Your task to perform on an android device: What is the recent news? Image 0: 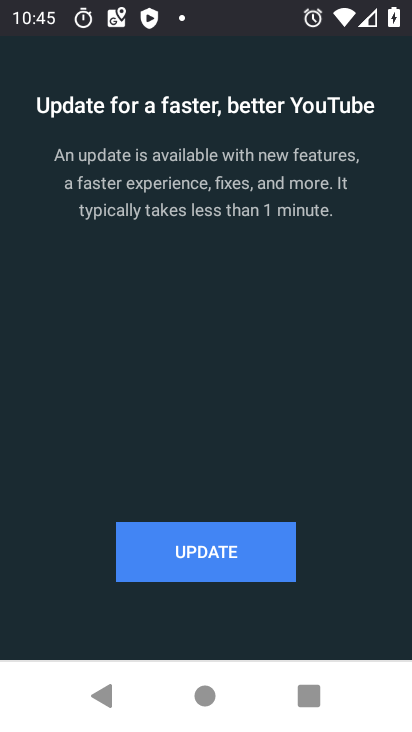
Step 0: press home button
Your task to perform on an android device: What is the recent news? Image 1: 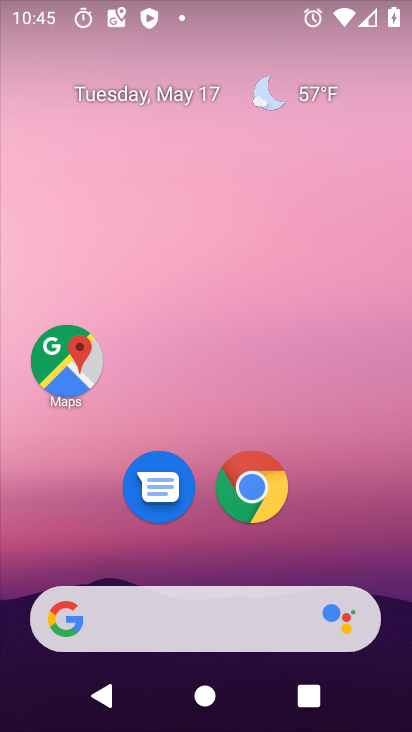
Step 1: task complete